Your task to perform on an android device: Open the Play Movies app and select the watchlist tab. Image 0: 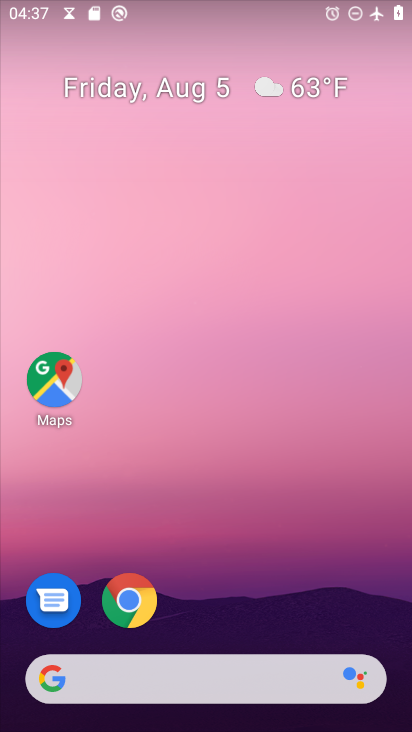
Step 0: drag from (214, 693) to (234, 8)
Your task to perform on an android device: Open the Play Movies app and select the watchlist tab. Image 1: 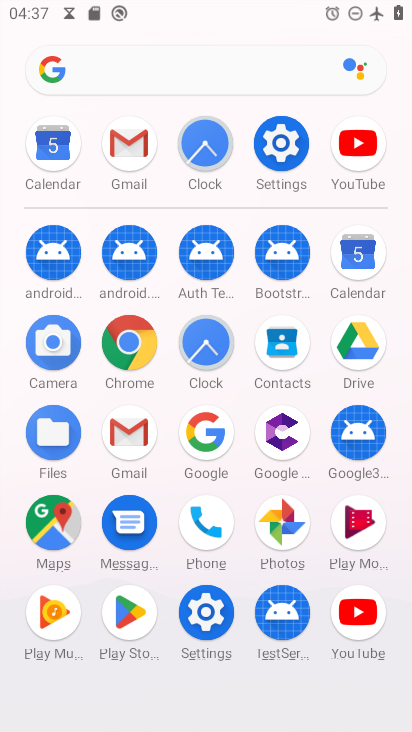
Step 1: click (356, 523)
Your task to perform on an android device: Open the Play Movies app and select the watchlist tab. Image 2: 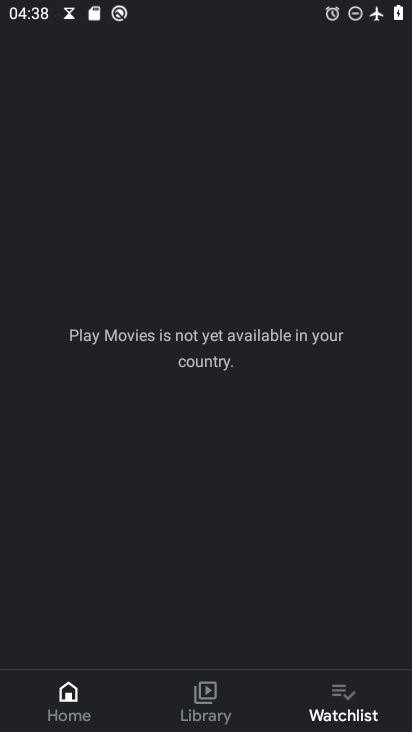
Step 2: click (336, 696)
Your task to perform on an android device: Open the Play Movies app and select the watchlist tab. Image 3: 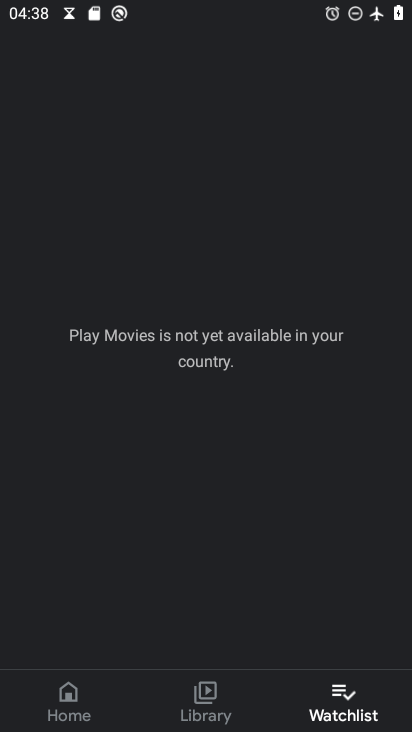
Step 3: task complete